Your task to perform on an android device: make emails show in primary in the gmail app Image 0: 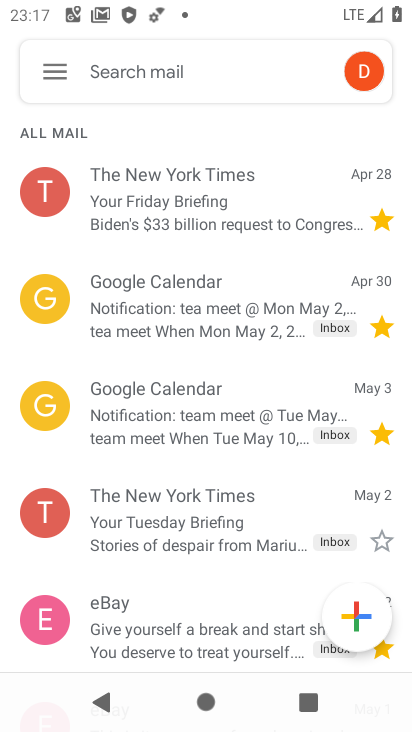
Step 0: press home button
Your task to perform on an android device: make emails show in primary in the gmail app Image 1: 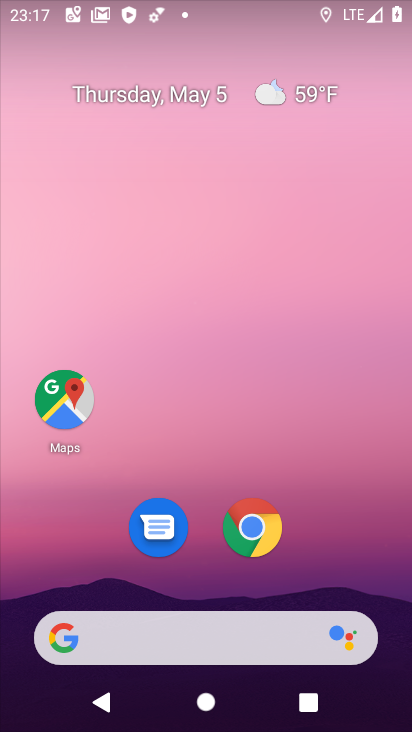
Step 1: drag from (200, 585) to (223, 9)
Your task to perform on an android device: make emails show in primary in the gmail app Image 2: 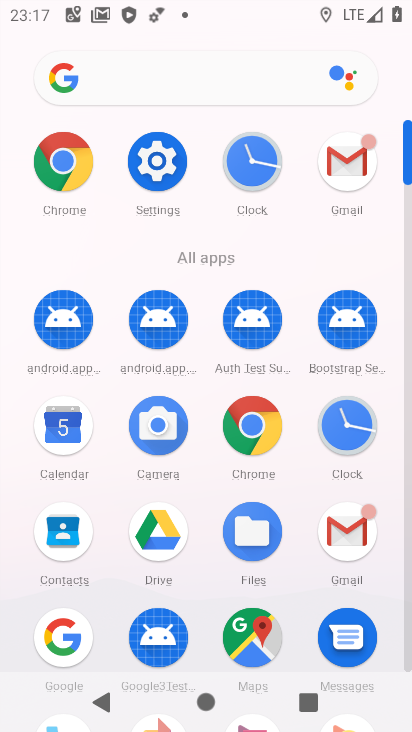
Step 2: click (329, 530)
Your task to perform on an android device: make emails show in primary in the gmail app Image 3: 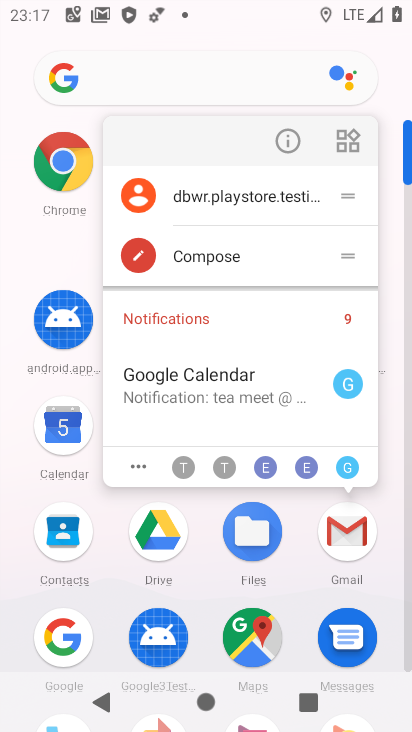
Step 3: click (354, 533)
Your task to perform on an android device: make emails show in primary in the gmail app Image 4: 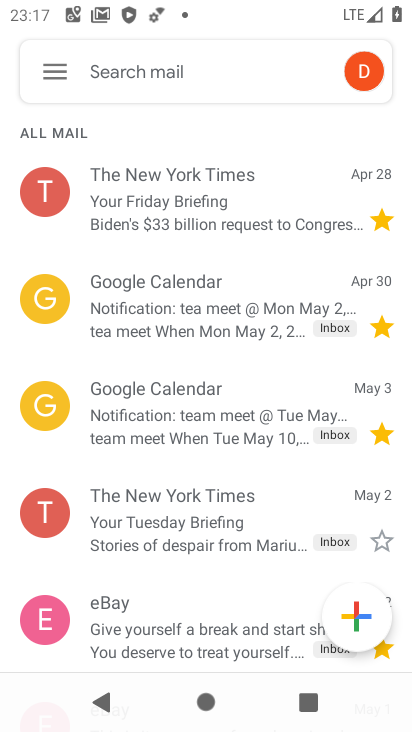
Step 4: click (56, 74)
Your task to perform on an android device: make emails show in primary in the gmail app Image 5: 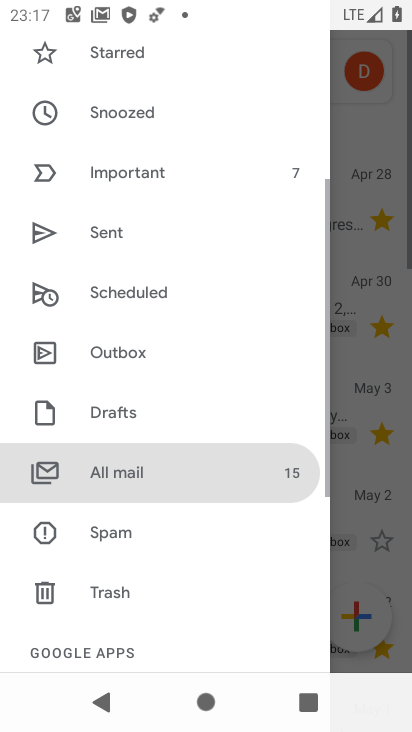
Step 5: drag from (102, 569) to (230, 31)
Your task to perform on an android device: make emails show in primary in the gmail app Image 6: 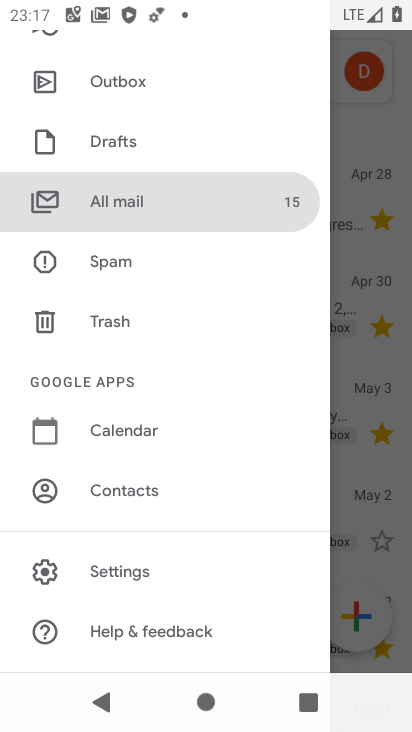
Step 6: click (143, 575)
Your task to perform on an android device: make emails show in primary in the gmail app Image 7: 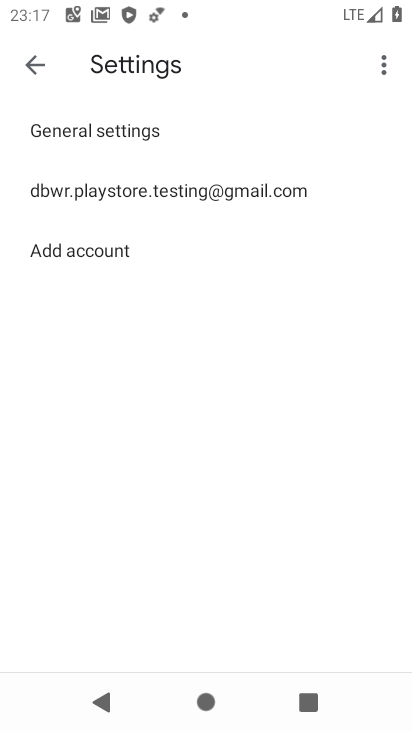
Step 7: click (141, 198)
Your task to perform on an android device: make emails show in primary in the gmail app Image 8: 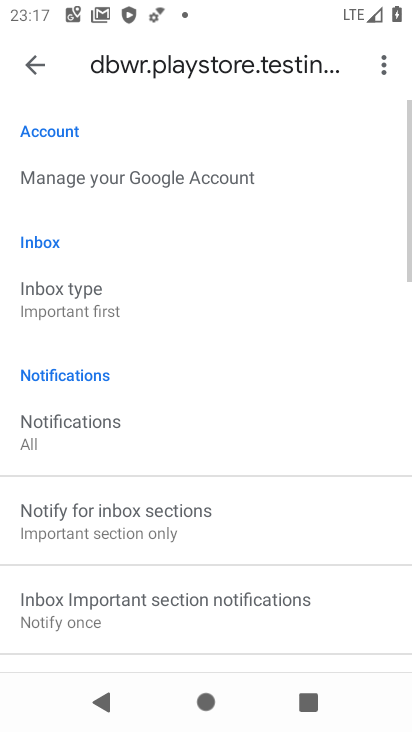
Step 8: click (106, 308)
Your task to perform on an android device: make emails show in primary in the gmail app Image 9: 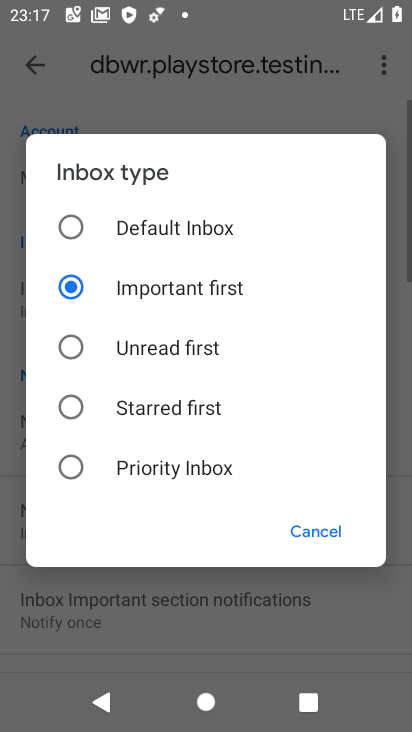
Step 9: click (115, 216)
Your task to perform on an android device: make emails show in primary in the gmail app Image 10: 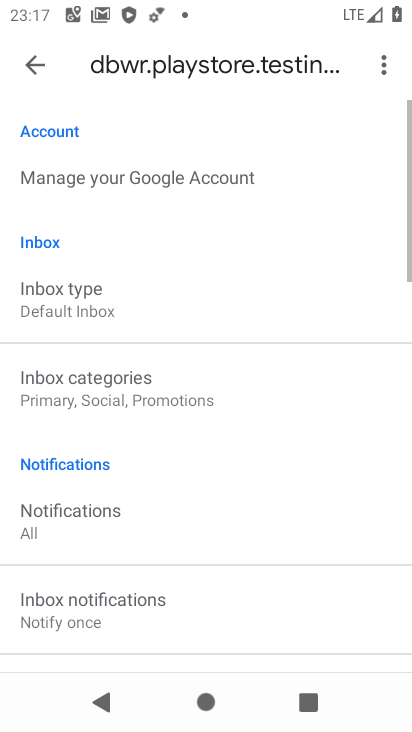
Step 10: click (115, 401)
Your task to perform on an android device: make emails show in primary in the gmail app Image 11: 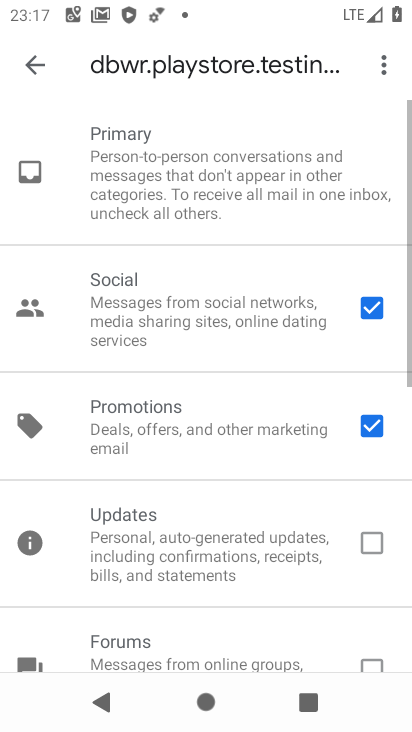
Step 11: click (369, 306)
Your task to perform on an android device: make emails show in primary in the gmail app Image 12: 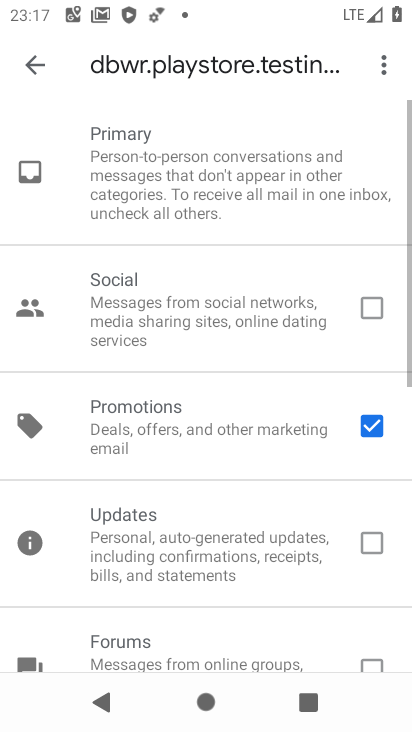
Step 12: click (357, 424)
Your task to perform on an android device: make emails show in primary in the gmail app Image 13: 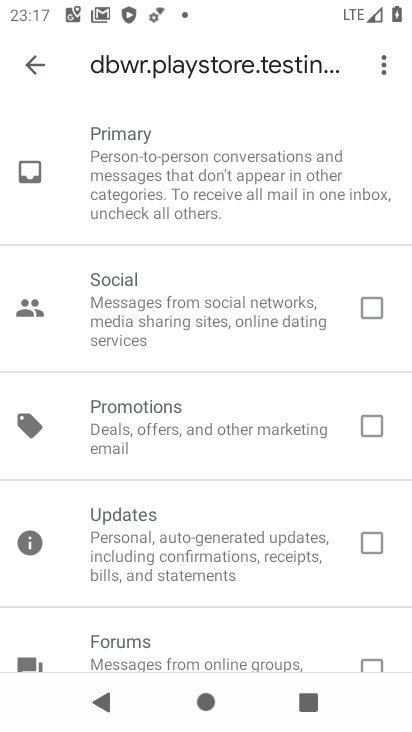
Step 13: task complete